Your task to perform on an android device: Show me popular videos on Youtube Image 0: 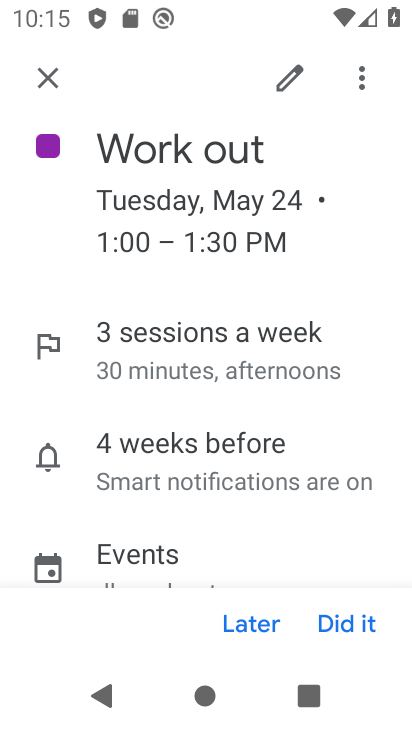
Step 0: press home button
Your task to perform on an android device: Show me popular videos on Youtube Image 1: 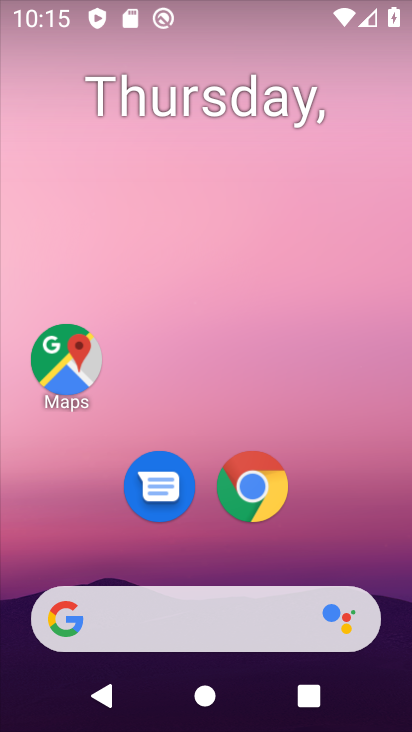
Step 1: drag from (165, 570) to (222, 128)
Your task to perform on an android device: Show me popular videos on Youtube Image 2: 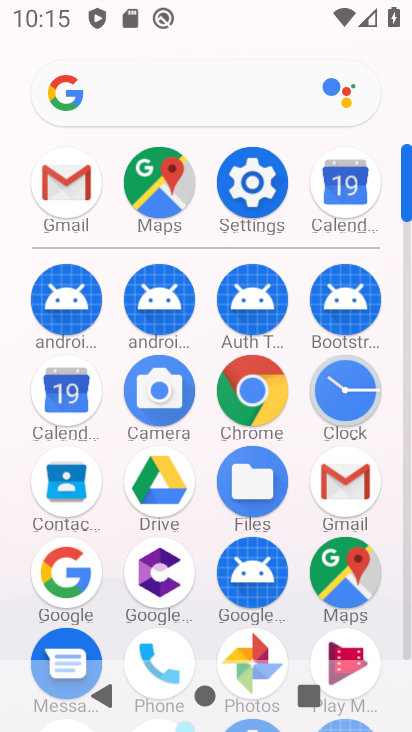
Step 2: drag from (123, 562) to (214, 34)
Your task to perform on an android device: Show me popular videos on Youtube Image 3: 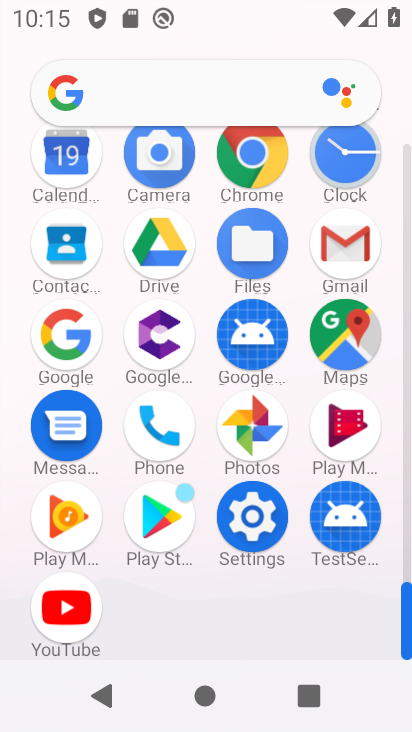
Step 3: click (56, 615)
Your task to perform on an android device: Show me popular videos on Youtube Image 4: 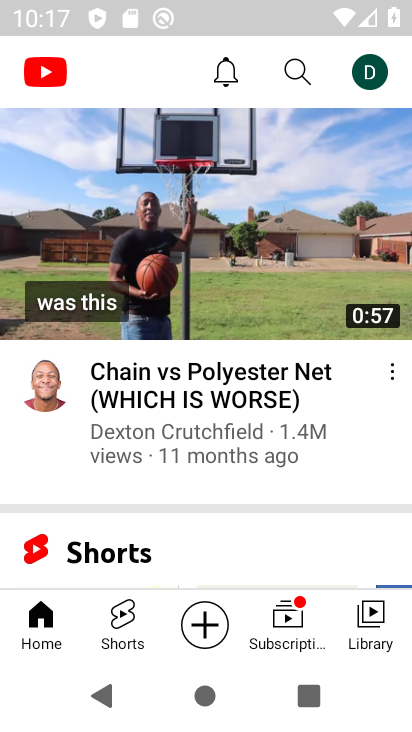
Step 4: drag from (166, 161) to (141, 554)
Your task to perform on an android device: Show me popular videos on Youtube Image 5: 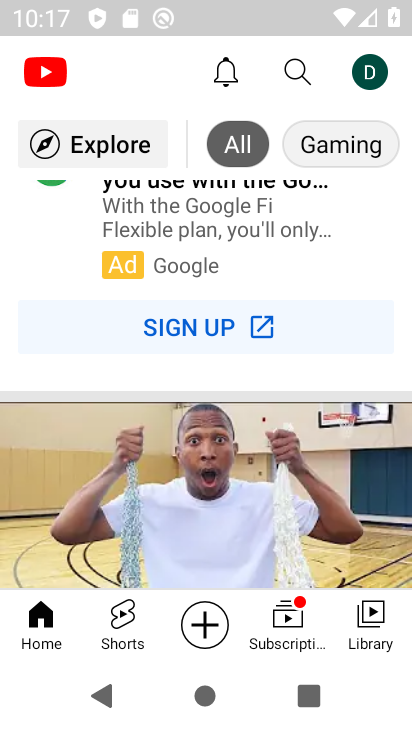
Step 5: click (108, 142)
Your task to perform on an android device: Show me popular videos on Youtube Image 6: 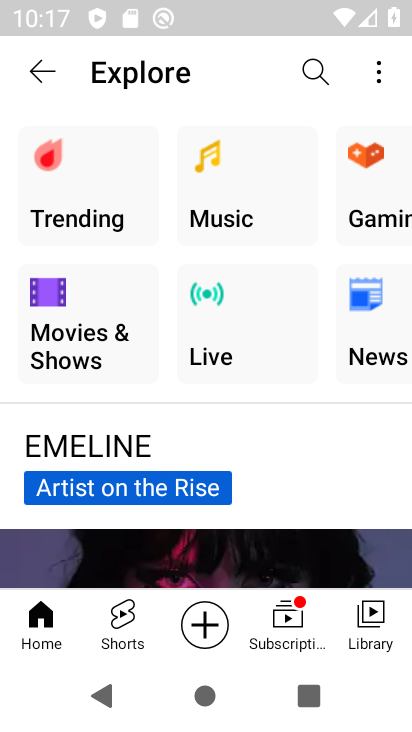
Step 6: click (74, 165)
Your task to perform on an android device: Show me popular videos on Youtube Image 7: 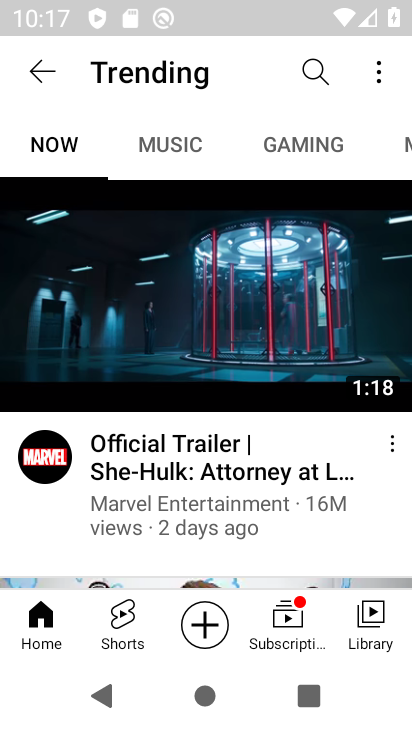
Step 7: task complete